Your task to perform on an android device: see creations saved in the google photos Image 0: 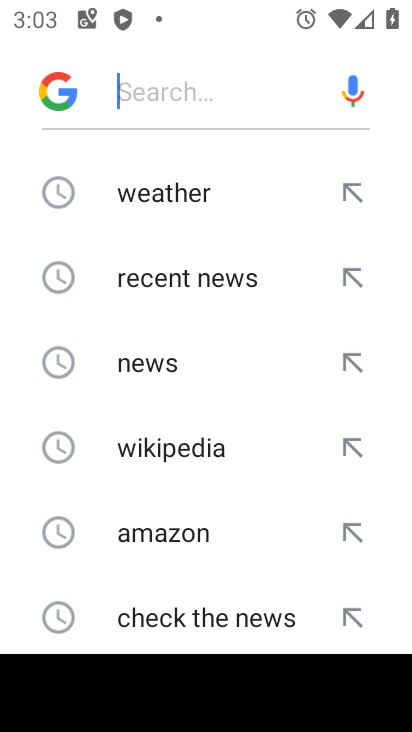
Step 0: press home button
Your task to perform on an android device: see creations saved in the google photos Image 1: 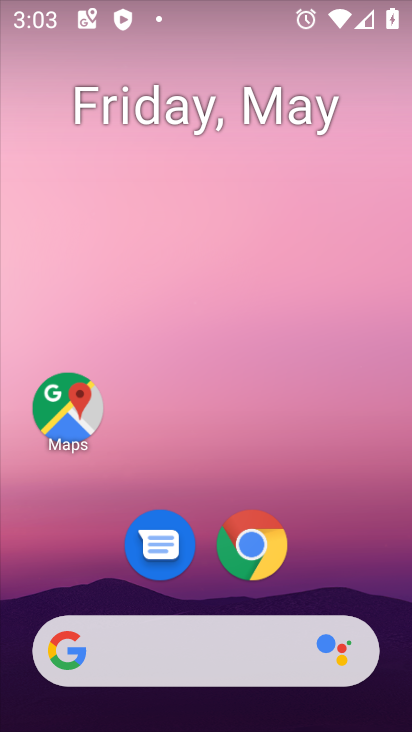
Step 1: drag from (357, 550) to (328, 117)
Your task to perform on an android device: see creations saved in the google photos Image 2: 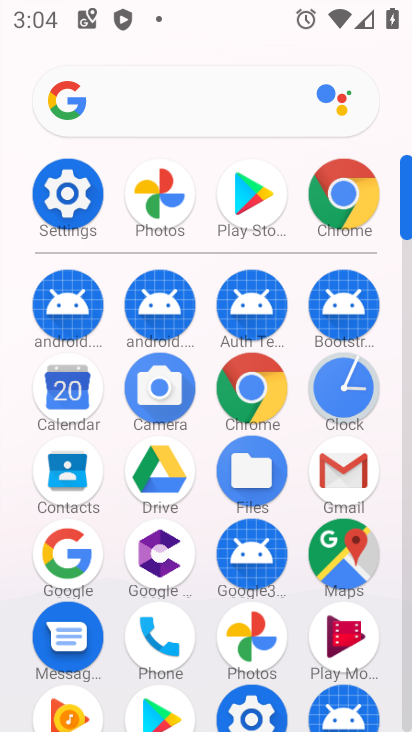
Step 2: click (242, 629)
Your task to perform on an android device: see creations saved in the google photos Image 3: 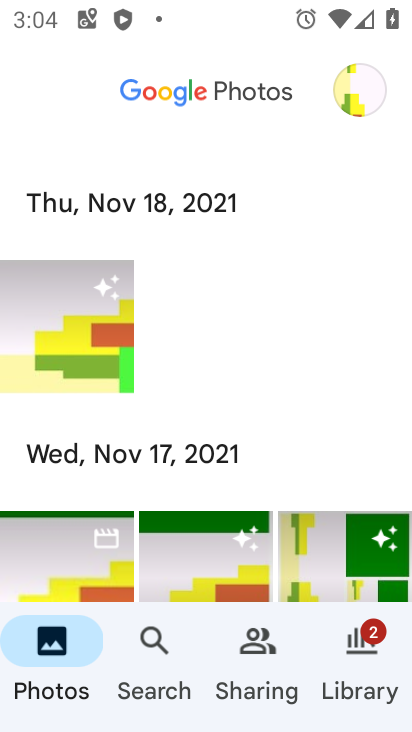
Step 3: click (146, 642)
Your task to perform on an android device: see creations saved in the google photos Image 4: 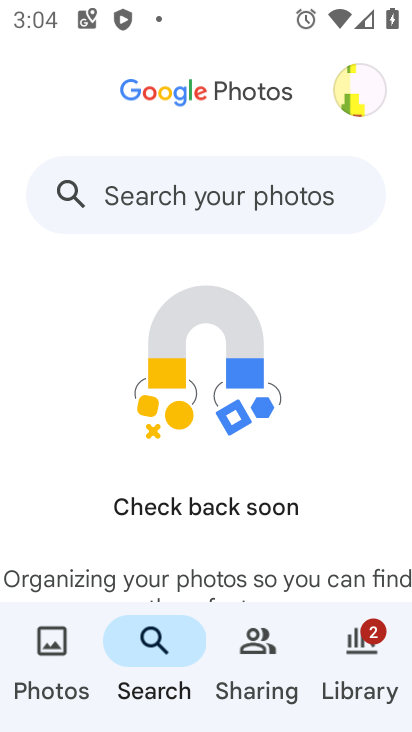
Step 4: drag from (328, 526) to (324, 147)
Your task to perform on an android device: see creations saved in the google photos Image 5: 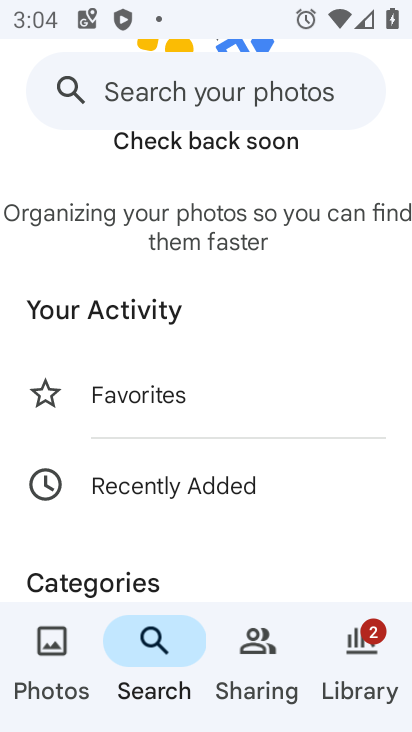
Step 5: drag from (291, 549) to (290, 142)
Your task to perform on an android device: see creations saved in the google photos Image 6: 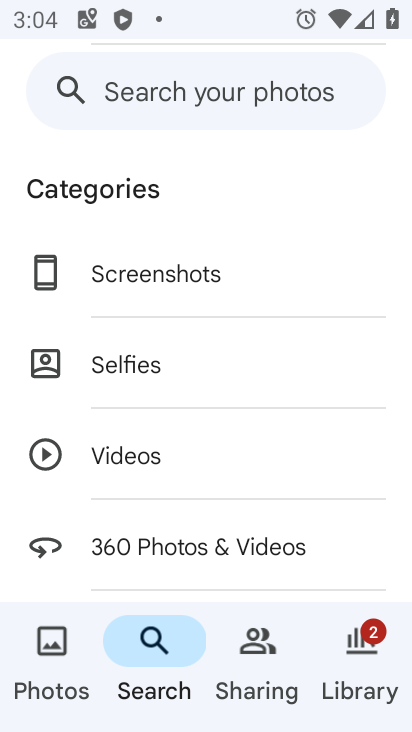
Step 6: drag from (292, 563) to (323, 192)
Your task to perform on an android device: see creations saved in the google photos Image 7: 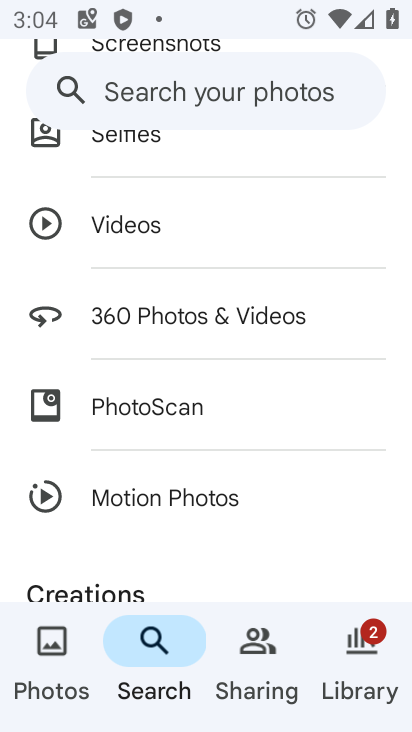
Step 7: drag from (241, 562) to (227, 185)
Your task to perform on an android device: see creations saved in the google photos Image 8: 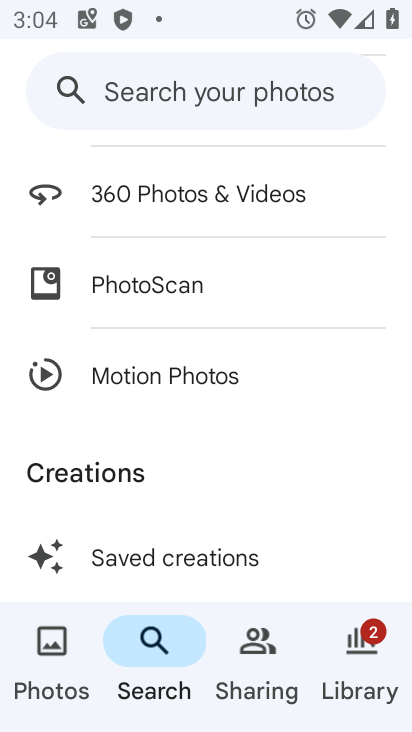
Step 8: click (153, 560)
Your task to perform on an android device: see creations saved in the google photos Image 9: 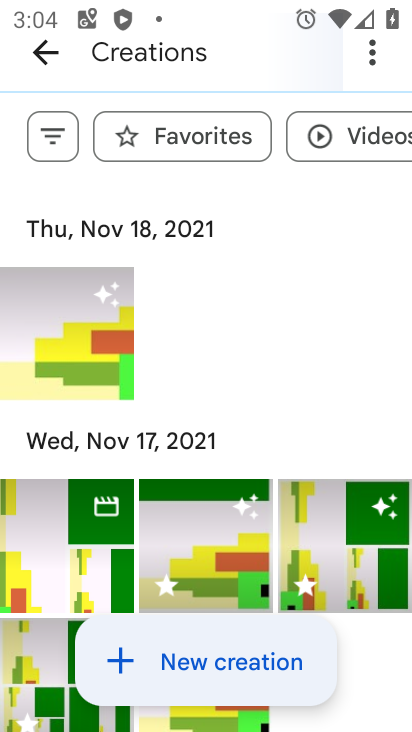
Step 9: task complete